Your task to perform on an android device: turn on improve location accuracy Image 0: 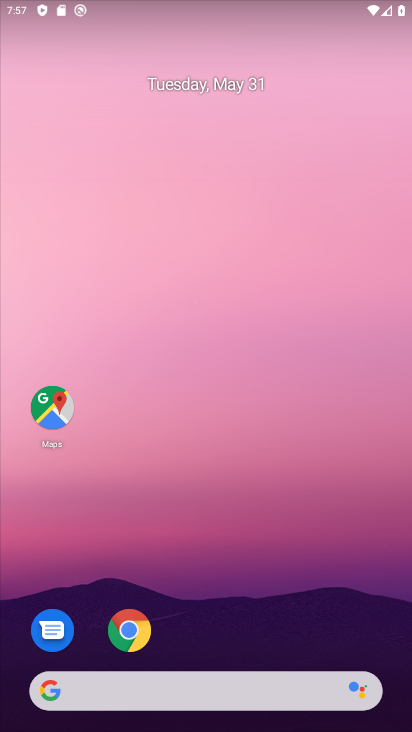
Step 0: drag from (260, 578) to (379, 183)
Your task to perform on an android device: turn on improve location accuracy Image 1: 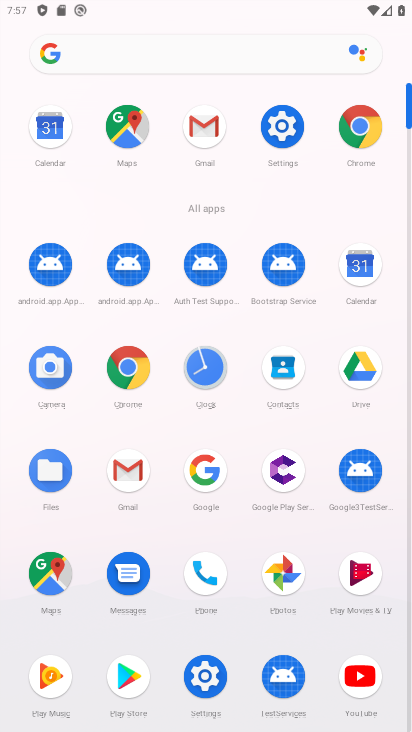
Step 1: click (277, 141)
Your task to perform on an android device: turn on improve location accuracy Image 2: 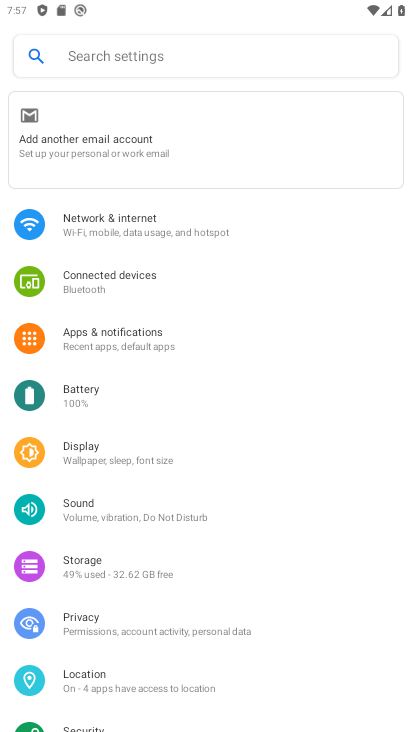
Step 2: click (161, 671)
Your task to perform on an android device: turn on improve location accuracy Image 3: 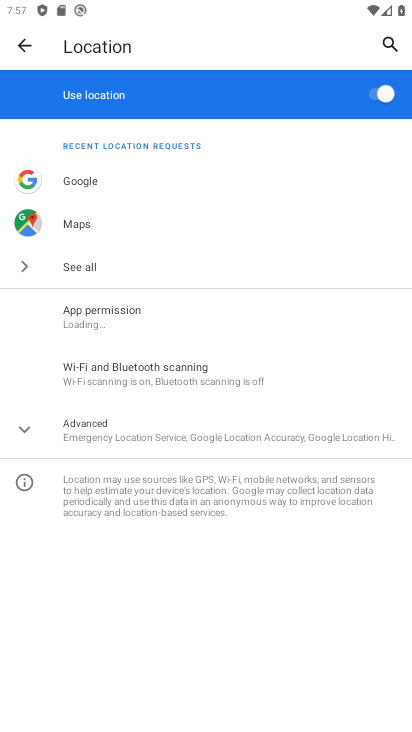
Step 3: click (21, 430)
Your task to perform on an android device: turn on improve location accuracy Image 4: 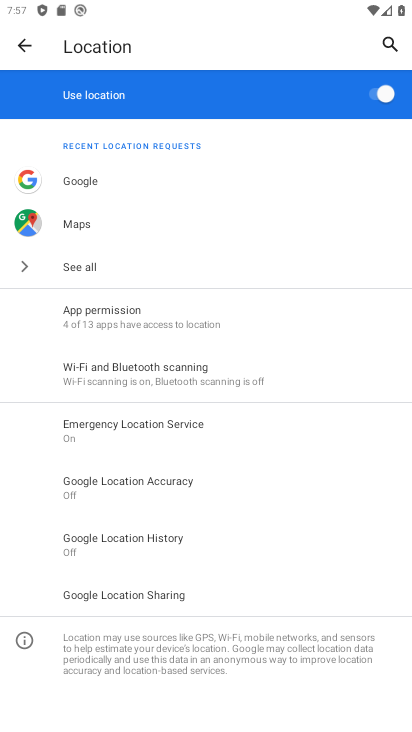
Step 4: click (101, 492)
Your task to perform on an android device: turn on improve location accuracy Image 5: 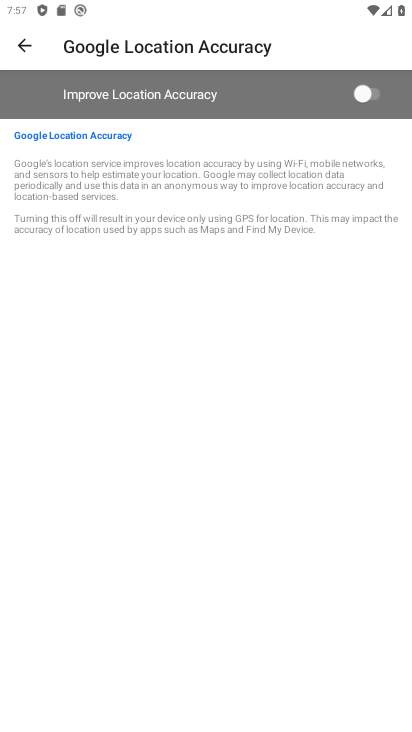
Step 5: click (369, 89)
Your task to perform on an android device: turn on improve location accuracy Image 6: 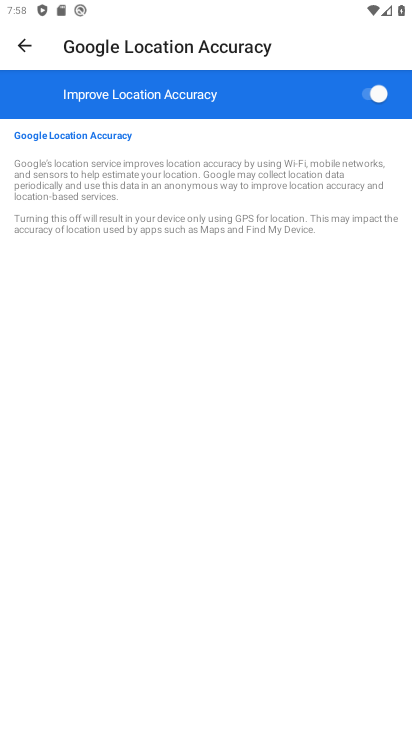
Step 6: task complete